Your task to perform on an android device: Go to accessibility settings Image 0: 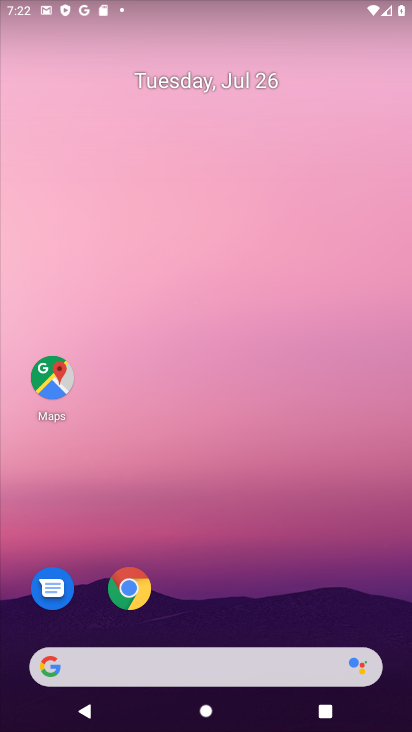
Step 0: drag from (204, 663) to (201, 162)
Your task to perform on an android device: Go to accessibility settings Image 1: 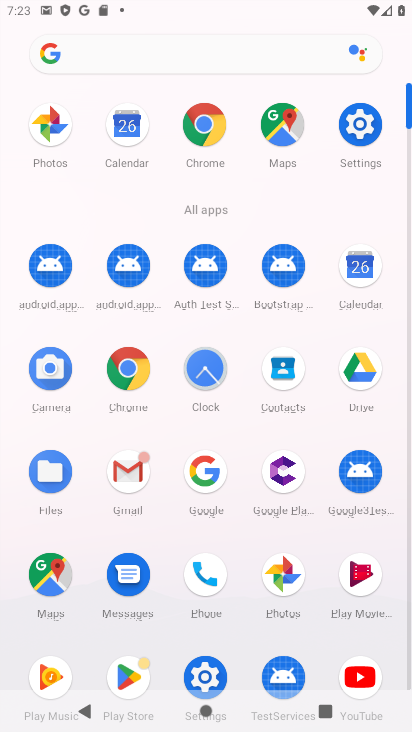
Step 1: click (356, 125)
Your task to perform on an android device: Go to accessibility settings Image 2: 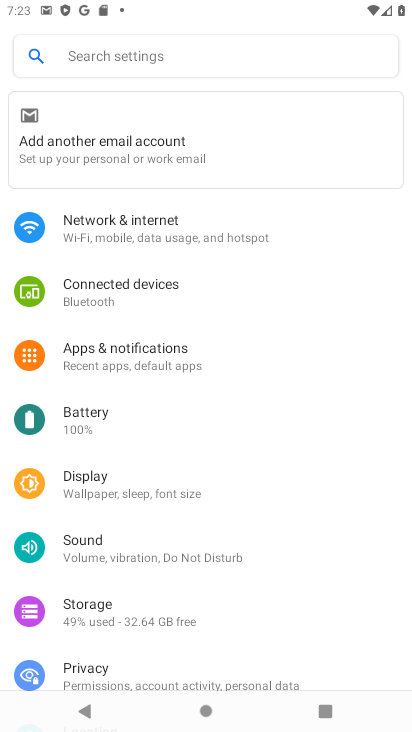
Step 2: drag from (178, 579) to (182, 268)
Your task to perform on an android device: Go to accessibility settings Image 3: 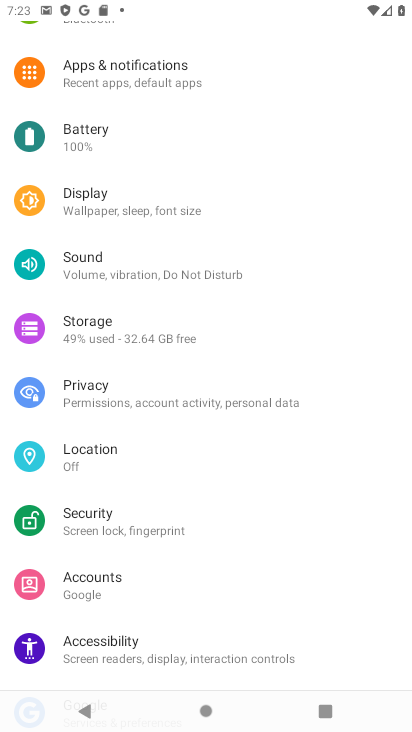
Step 3: click (148, 660)
Your task to perform on an android device: Go to accessibility settings Image 4: 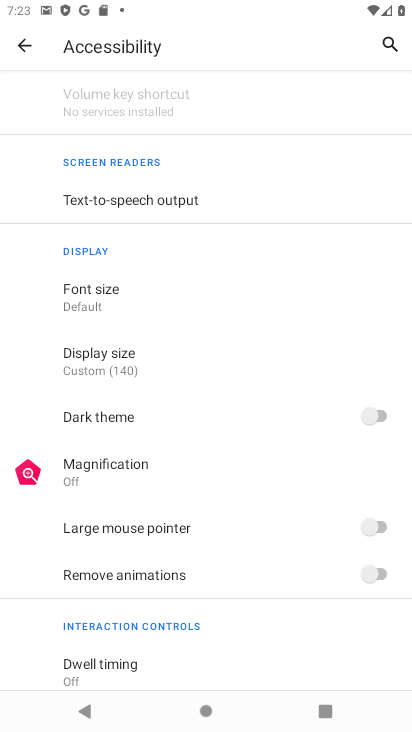
Step 4: task complete